Your task to perform on an android device: Is it going to rain tomorrow? Image 0: 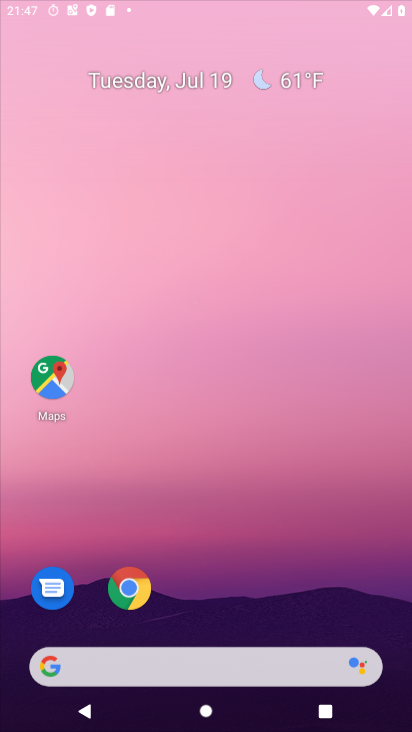
Step 0: press home button
Your task to perform on an android device: Is it going to rain tomorrow? Image 1: 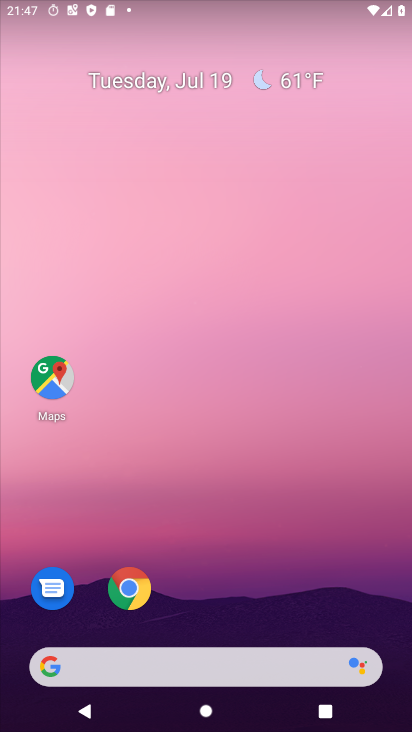
Step 1: drag from (215, 620) to (222, 661)
Your task to perform on an android device: Is it going to rain tomorrow? Image 2: 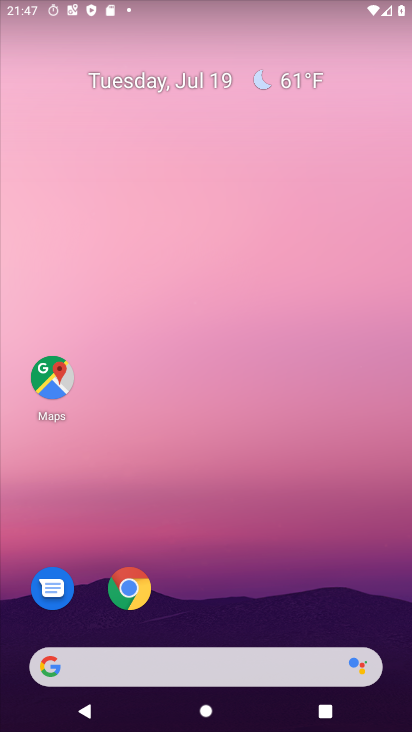
Step 2: click (284, 78)
Your task to perform on an android device: Is it going to rain tomorrow? Image 3: 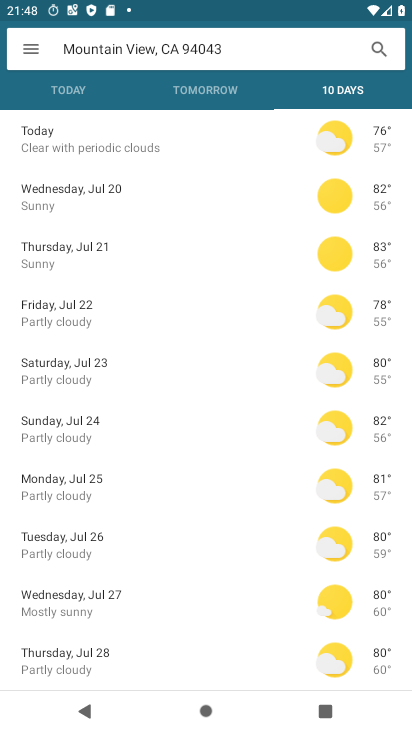
Step 3: click (185, 101)
Your task to perform on an android device: Is it going to rain tomorrow? Image 4: 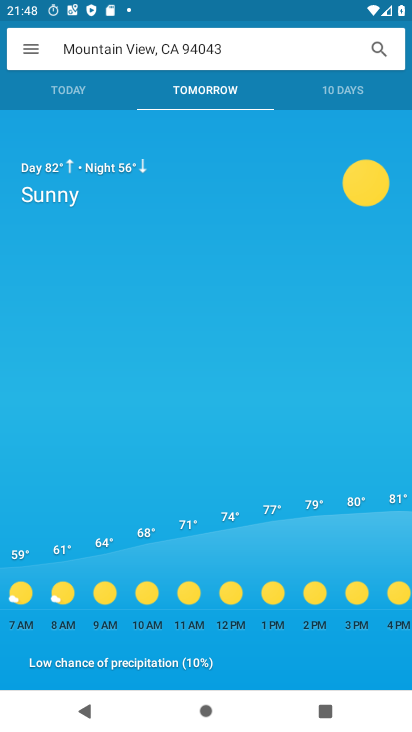
Step 4: task complete